Your task to perform on an android device: Check the weather Image 0: 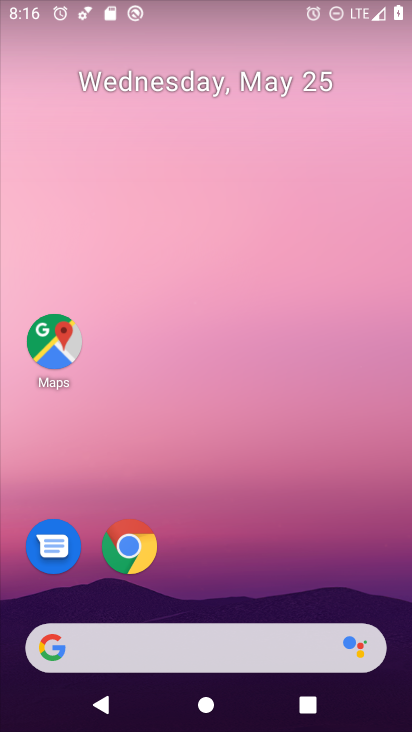
Step 0: click (272, 646)
Your task to perform on an android device: Check the weather Image 1: 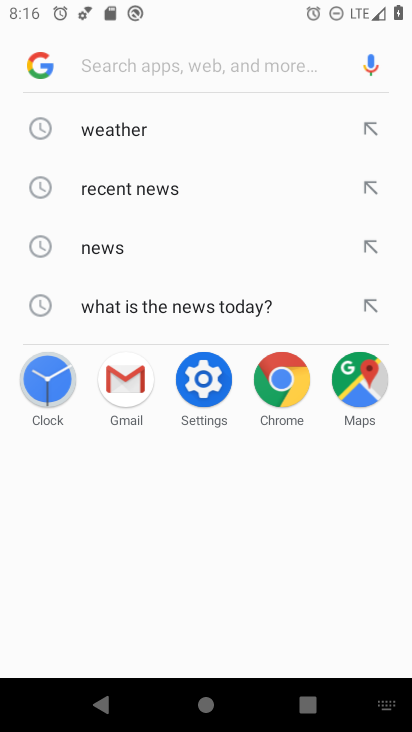
Step 1: click (136, 129)
Your task to perform on an android device: Check the weather Image 2: 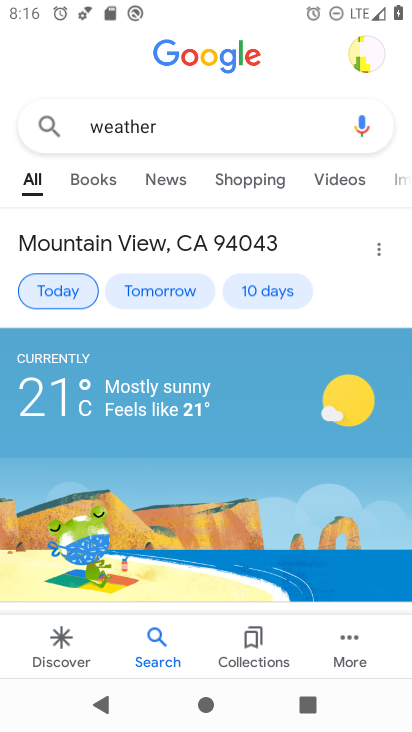
Step 2: task complete